Your task to perform on an android device: turn on translation in the chrome app Image 0: 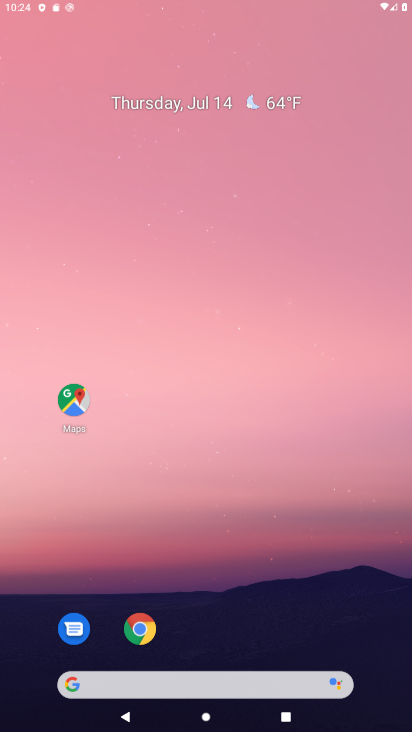
Step 0: drag from (188, 643) to (188, 347)
Your task to perform on an android device: turn on translation in the chrome app Image 1: 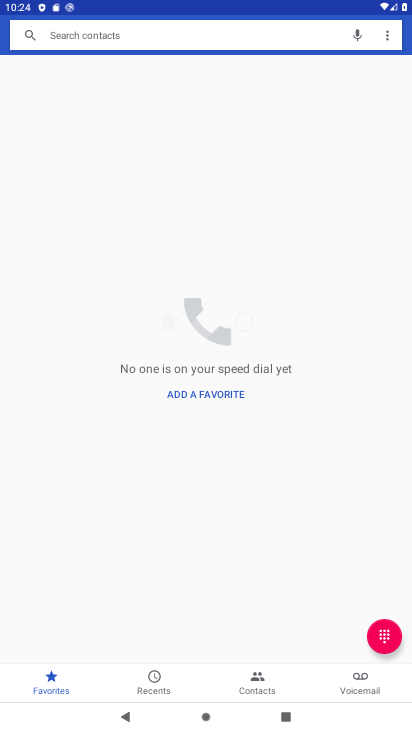
Step 1: press home button
Your task to perform on an android device: turn on translation in the chrome app Image 2: 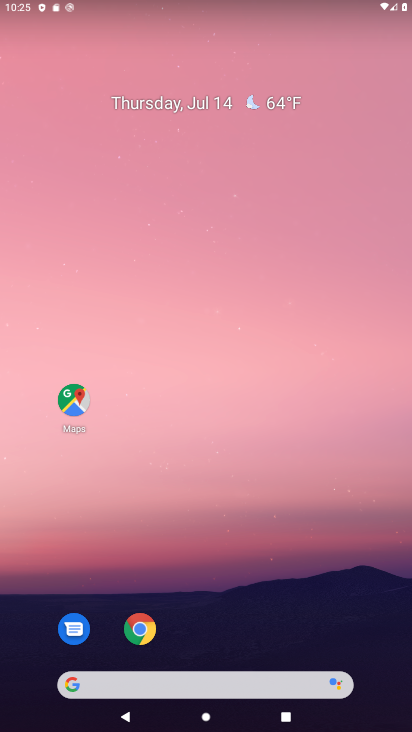
Step 2: click (136, 618)
Your task to perform on an android device: turn on translation in the chrome app Image 3: 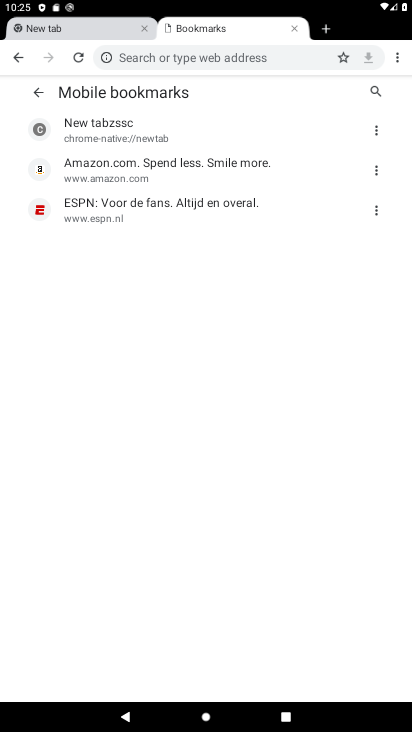
Step 3: click (400, 62)
Your task to perform on an android device: turn on translation in the chrome app Image 4: 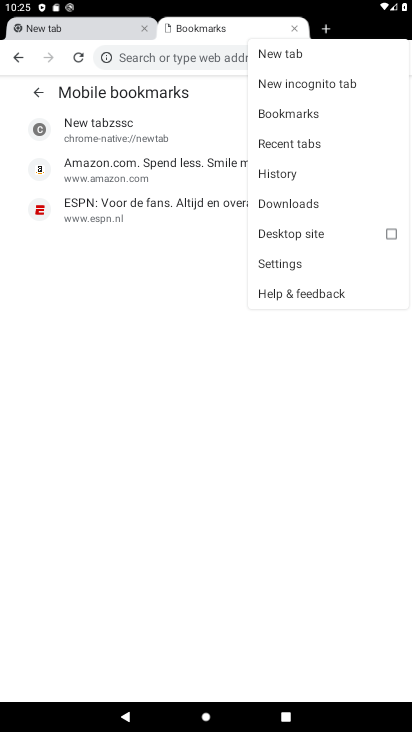
Step 4: click (268, 260)
Your task to perform on an android device: turn on translation in the chrome app Image 5: 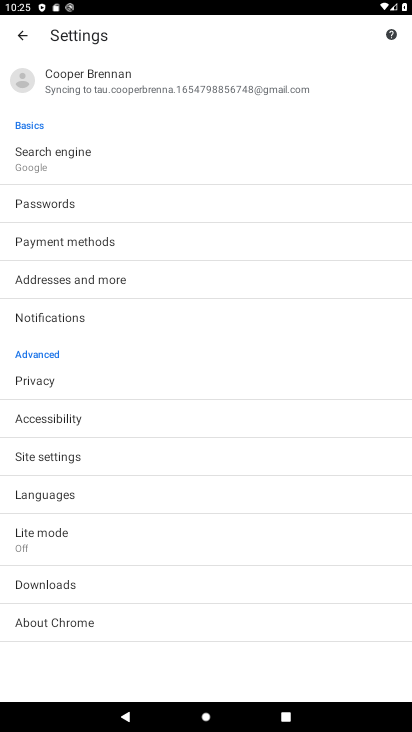
Step 5: click (59, 493)
Your task to perform on an android device: turn on translation in the chrome app Image 6: 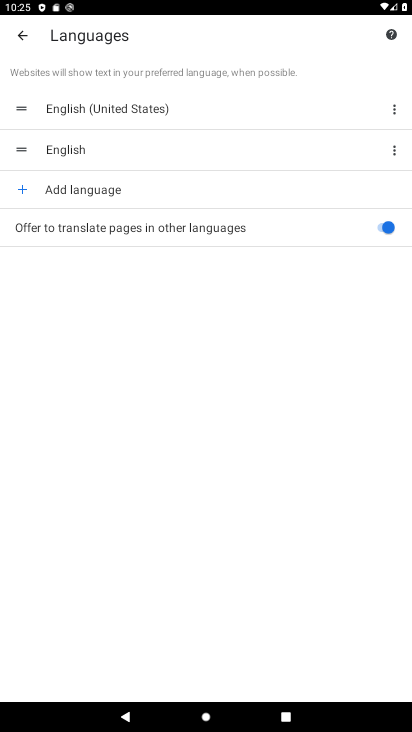
Step 6: click (381, 227)
Your task to perform on an android device: turn on translation in the chrome app Image 7: 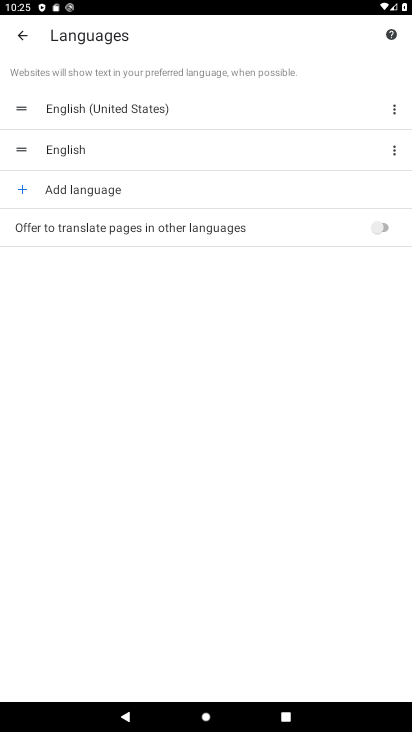
Step 7: click (381, 227)
Your task to perform on an android device: turn on translation in the chrome app Image 8: 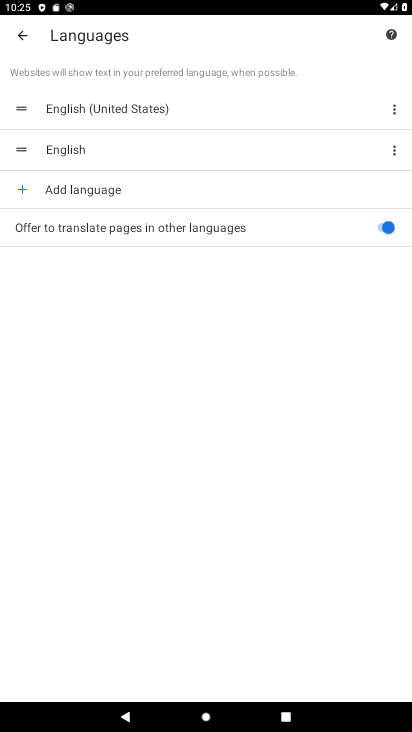
Step 8: task complete